Your task to perform on an android device: turn off javascript in the chrome app Image 0: 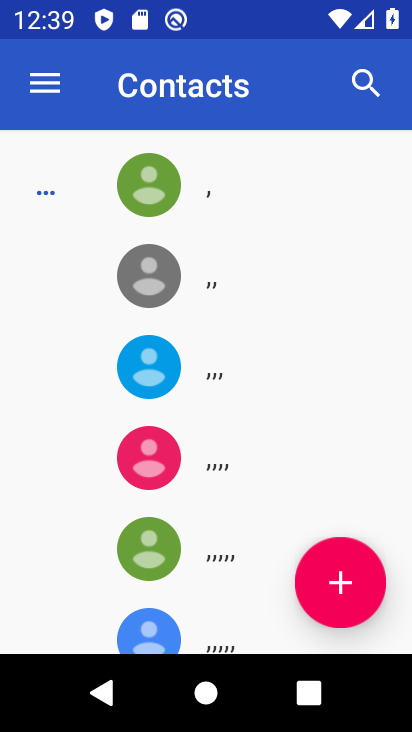
Step 0: press back button
Your task to perform on an android device: turn off javascript in the chrome app Image 1: 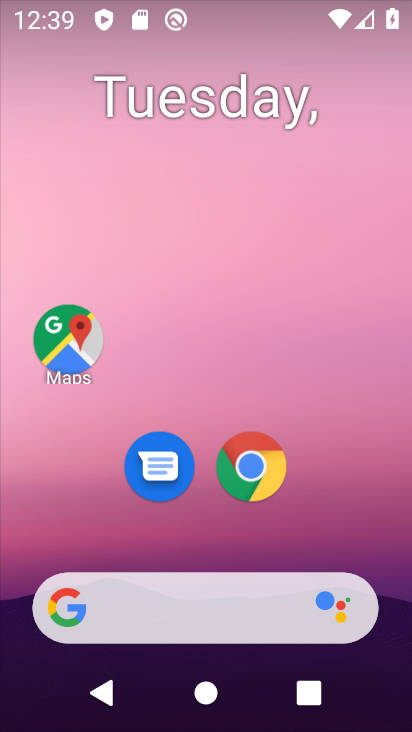
Step 1: drag from (378, 540) to (383, 226)
Your task to perform on an android device: turn off javascript in the chrome app Image 2: 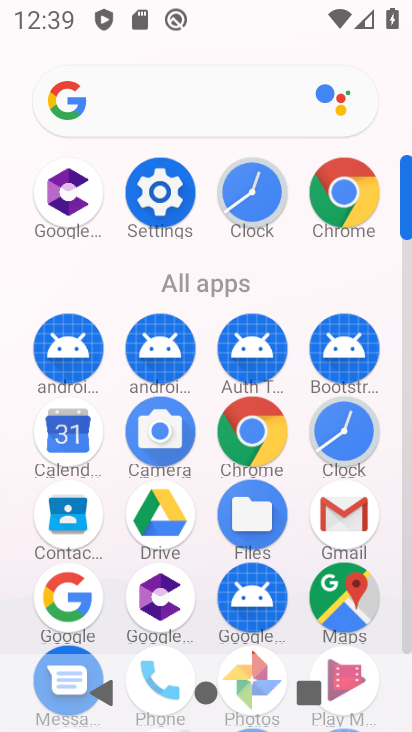
Step 2: click (259, 447)
Your task to perform on an android device: turn off javascript in the chrome app Image 3: 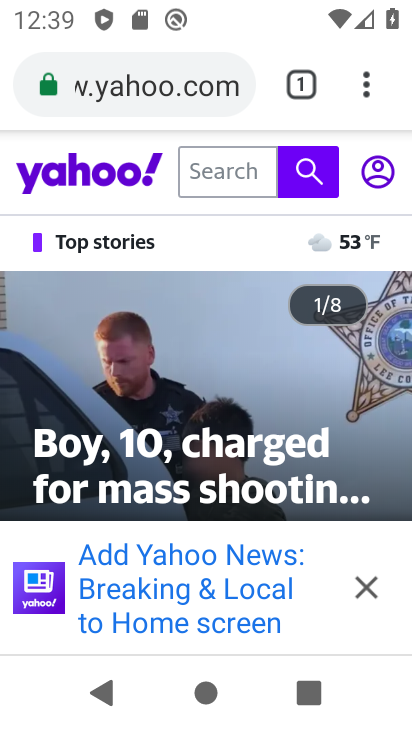
Step 3: click (364, 95)
Your task to perform on an android device: turn off javascript in the chrome app Image 4: 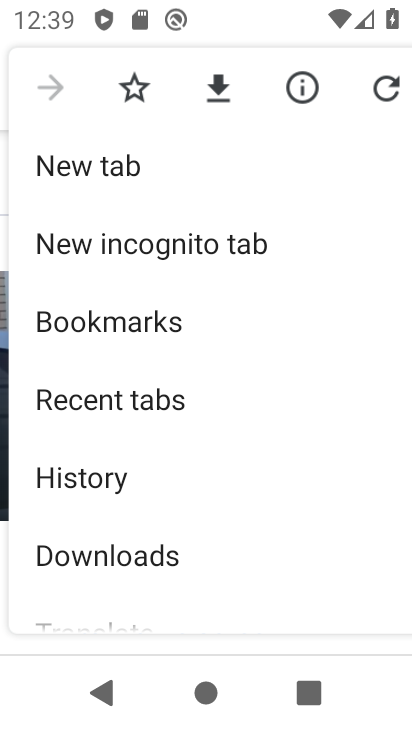
Step 4: drag from (330, 452) to (341, 387)
Your task to perform on an android device: turn off javascript in the chrome app Image 5: 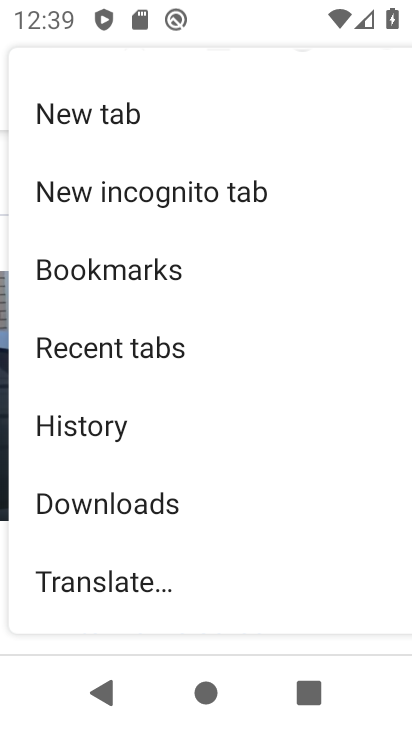
Step 5: drag from (345, 506) to (348, 413)
Your task to perform on an android device: turn off javascript in the chrome app Image 6: 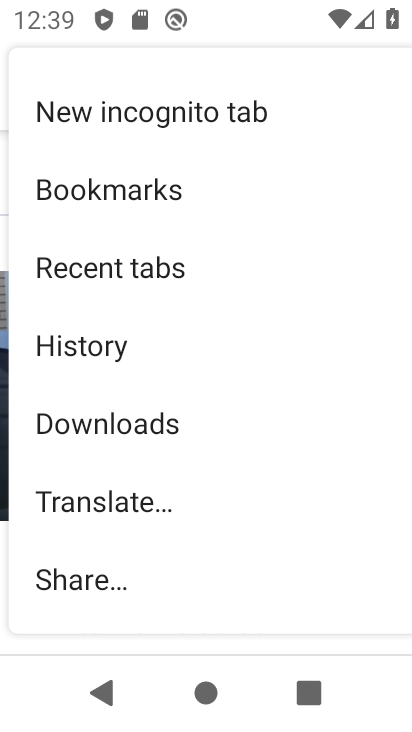
Step 6: drag from (338, 501) to (340, 430)
Your task to perform on an android device: turn off javascript in the chrome app Image 7: 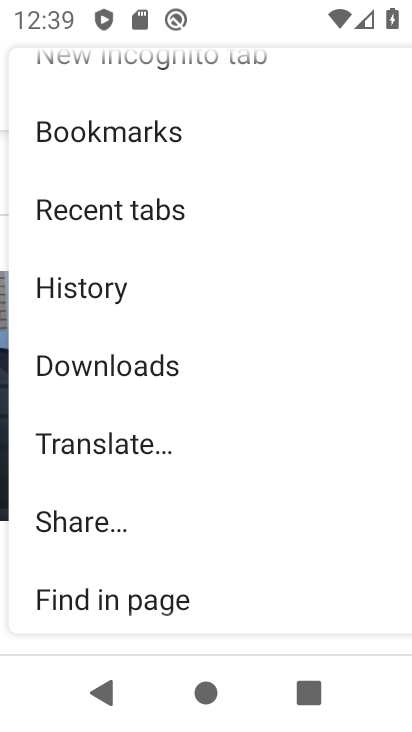
Step 7: drag from (341, 514) to (346, 437)
Your task to perform on an android device: turn off javascript in the chrome app Image 8: 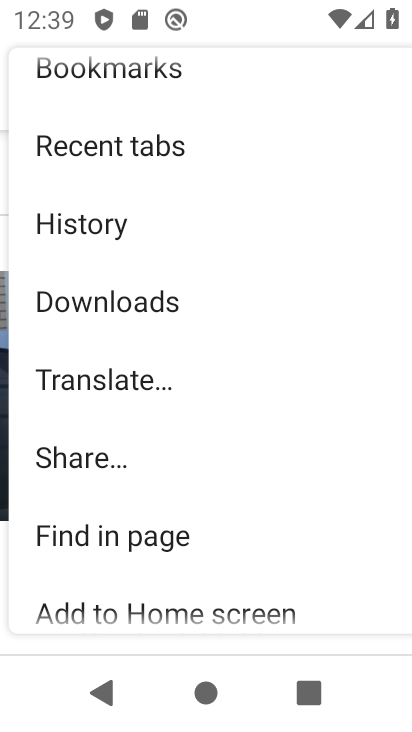
Step 8: drag from (314, 523) to (331, 398)
Your task to perform on an android device: turn off javascript in the chrome app Image 9: 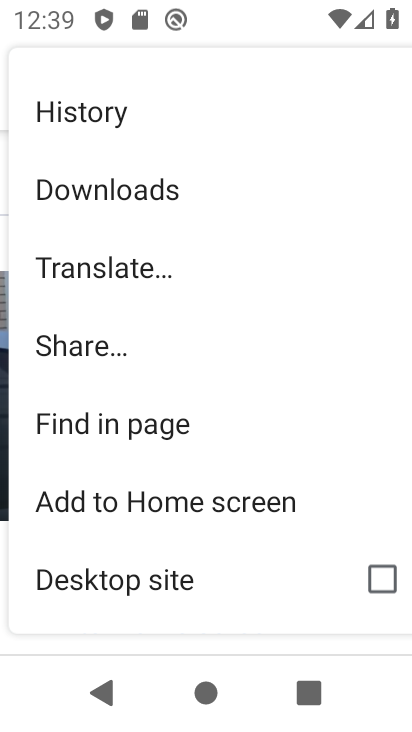
Step 9: drag from (295, 566) to (306, 439)
Your task to perform on an android device: turn off javascript in the chrome app Image 10: 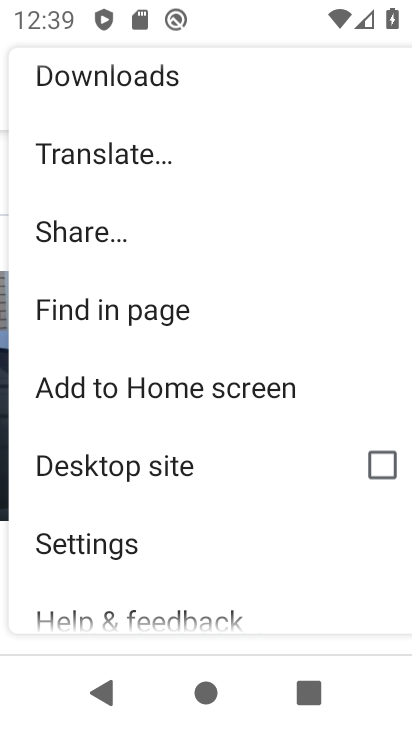
Step 10: drag from (291, 545) to (307, 427)
Your task to perform on an android device: turn off javascript in the chrome app Image 11: 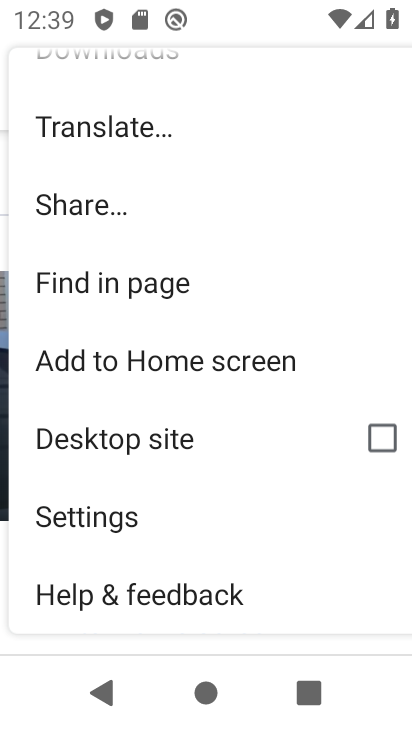
Step 11: click (192, 537)
Your task to perform on an android device: turn off javascript in the chrome app Image 12: 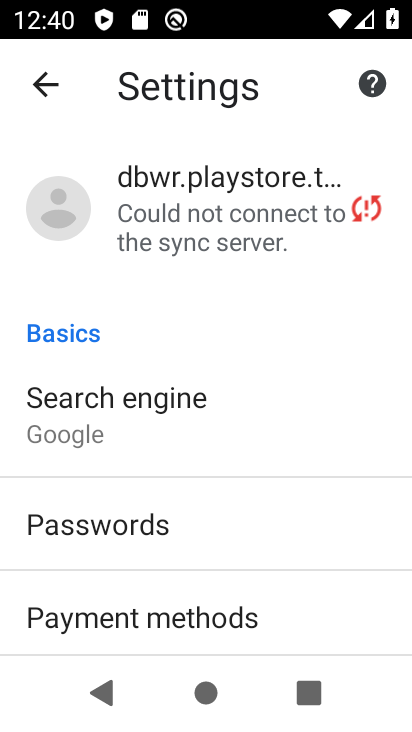
Step 12: drag from (341, 554) to (324, 439)
Your task to perform on an android device: turn off javascript in the chrome app Image 13: 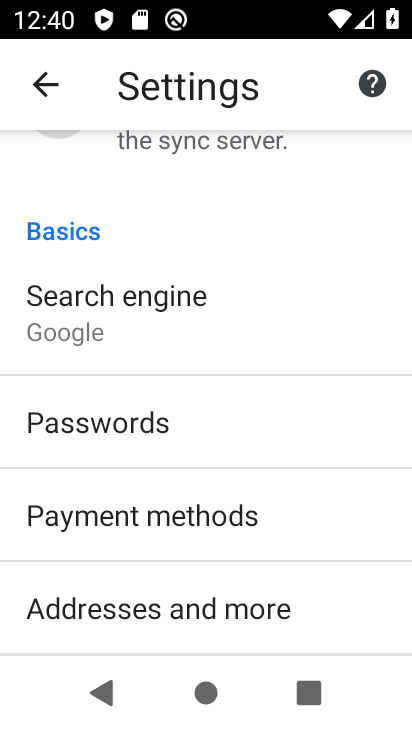
Step 13: drag from (349, 555) to (336, 409)
Your task to perform on an android device: turn off javascript in the chrome app Image 14: 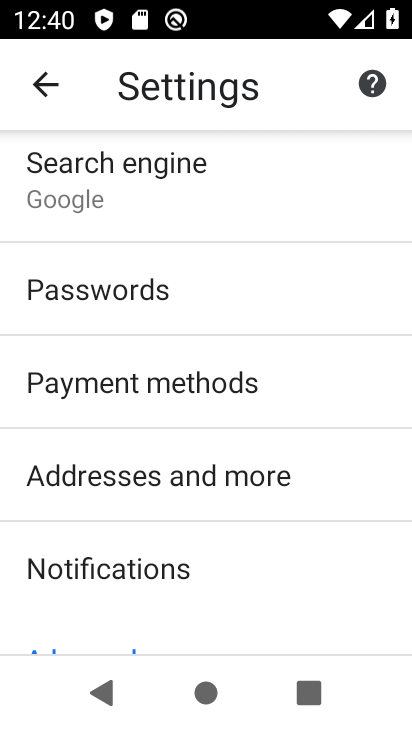
Step 14: drag from (352, 499) to (358, 397)
Your task to perform on an android device: turn off javascript in the chrome app Image 15: 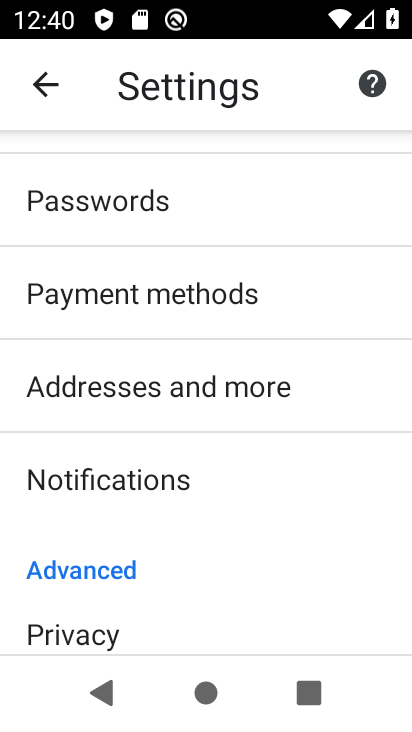
Step 15: drag from (366, 515) to (359, 414)
Your task to perform on an android device: turn off javascript in the chrome app Image 16: 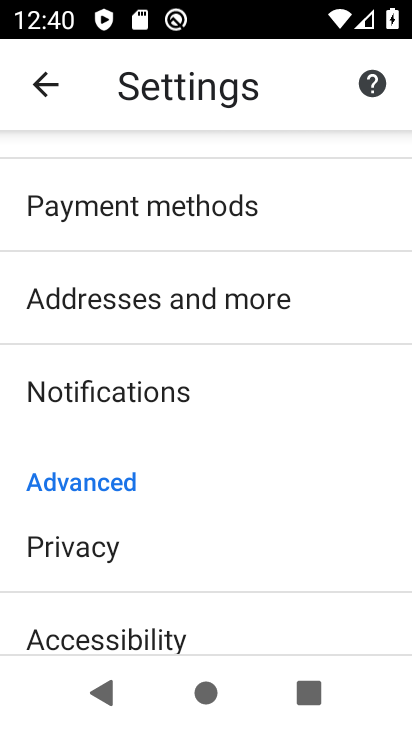
Step 16: drag from (244, 460) to (262, 336)
Your task to perform on an android device: turn off javascript in the chrome app Image 17: 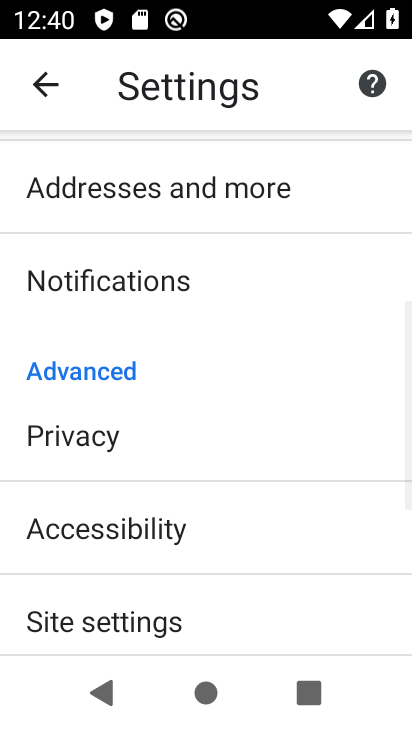
Step 17: drag from (289, 444) to (305, 362)
Your task to perform on an android device: turn off javascript in the chrome app Image 18: 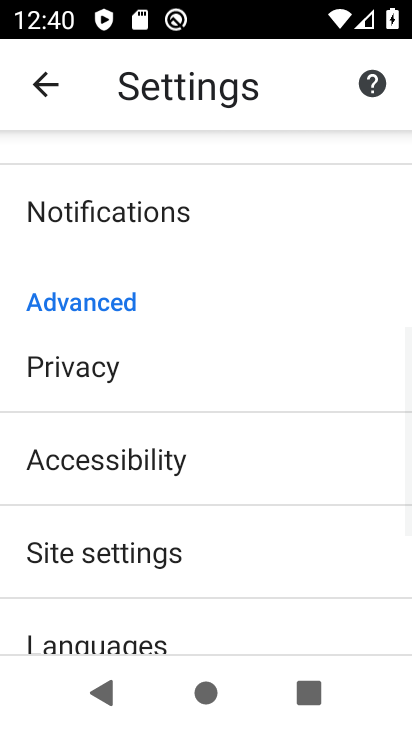
Step 18: drag from (303, 473) to (310, 368)
Your task to perform on an android device: turn off javascript in the chrome app Image 19: 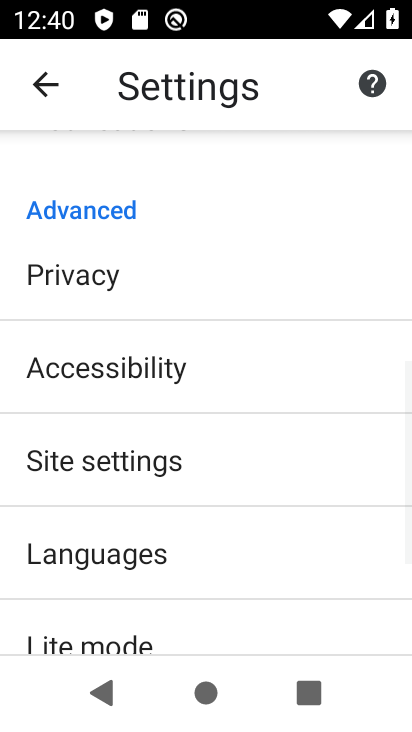
Step 19: drag from (310, 489) to (320, 406)
Your task to perform on an android device: turn off javascript in the chrome app Image 20: 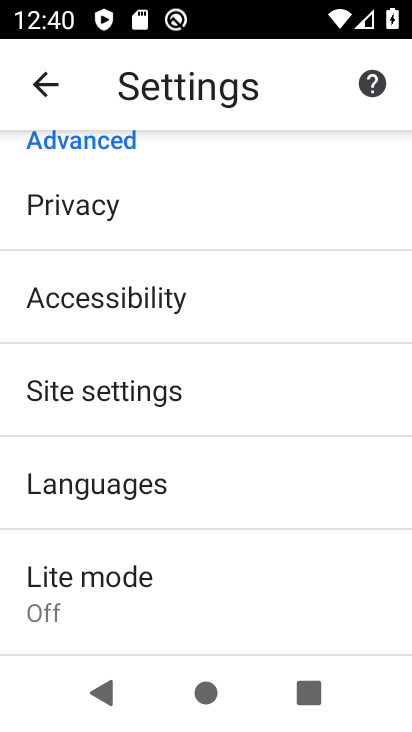
Step 20: drag from (317, 513) to (327, 441)
Your task to perform on an android device: turn off javascript in the chrome app Image 21: 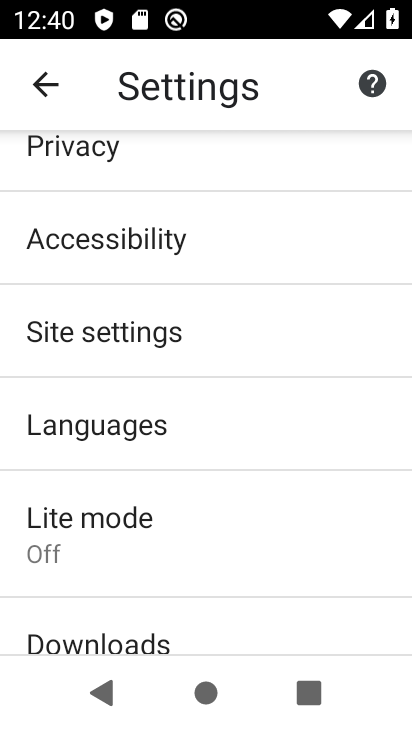
Step 21: click (231, 343)
Your task to perform on an android device: turn off javascript in the chrome app Image 22: 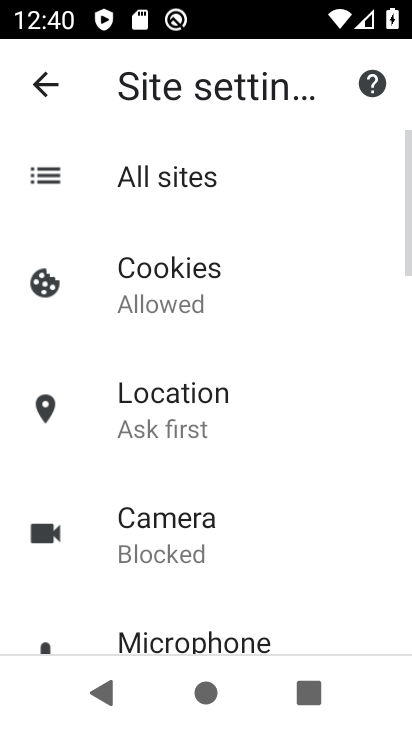
Step 22: drag from (292, 499) to (305, 403)
Your task to perform on an android device: turn off javascript in the chrome app Image 23: 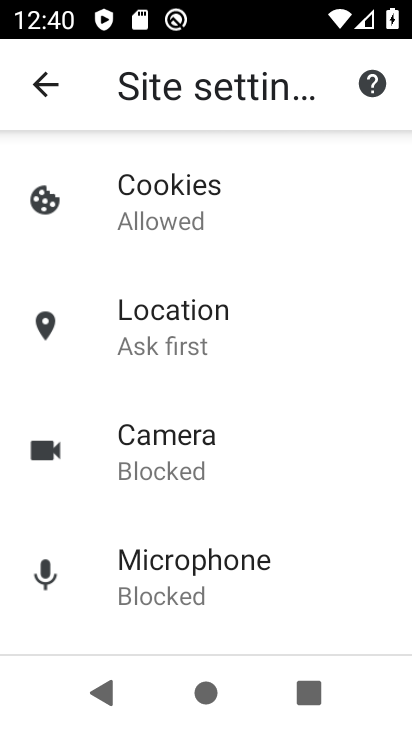
Step 23: drag from (345, 552) to (352, 449)
Your task to perform on an android device: turn off javascript in the chrome app Image 24: 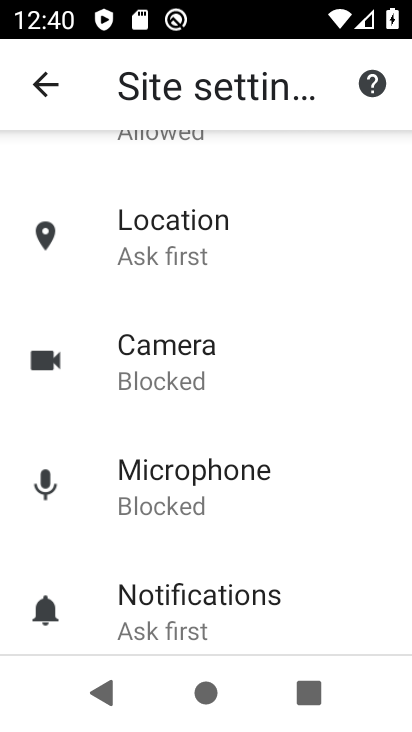
Step 24: drag from (334, 533) to (336, 417)
Your task to perform on an android device: turn off javascript in the chrome app Image 25: 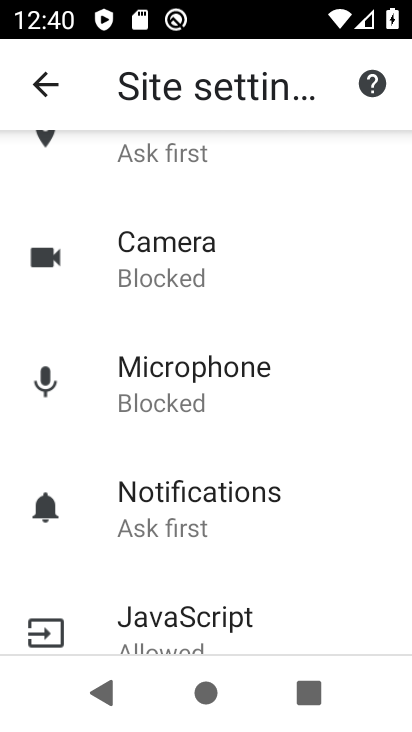
Step 25: drag from (351, 535) to (353, 379)
Your task to perform on an android device: turn off javascript in the chrome app Image 26: 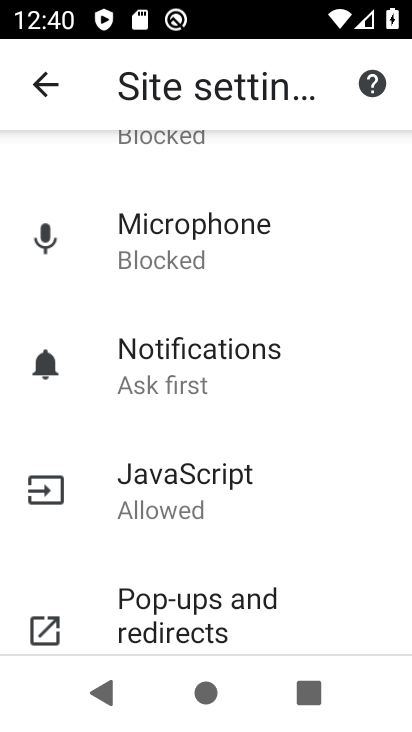
Step 26: drag from (338, 513) to (345, 376)
Your task to perform on an android device: turn off javascript in the chrome app Image 27: 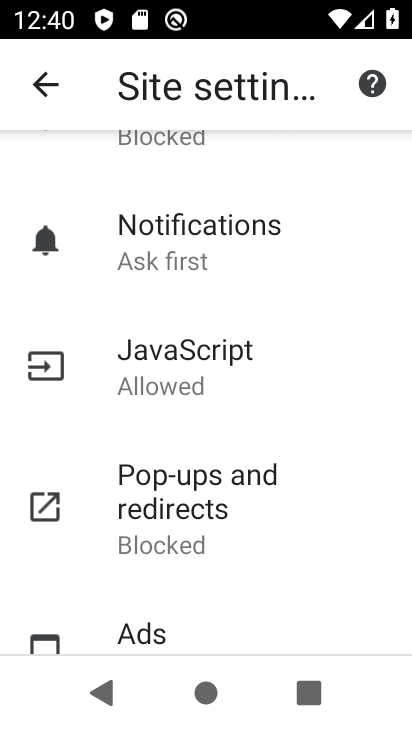
Step 27: click (252, 390)
Your task to perform on an android device: turn off javascript in the chrome app Image 28: 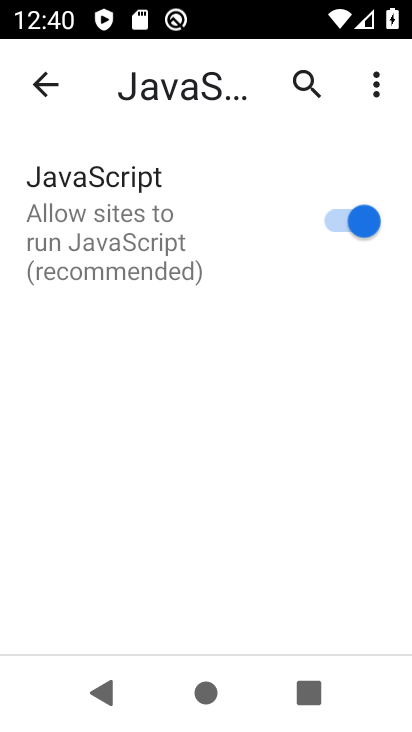
Step 28: click (349, 237)
Your task to perform on an android device: turn off javascript in the chrome app Image 29: 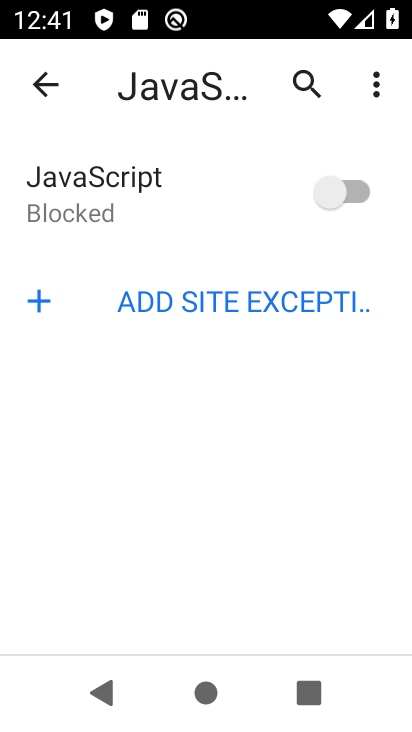
Step 29: task complete